Your task to perform on an android device: Open eBay Image 0: 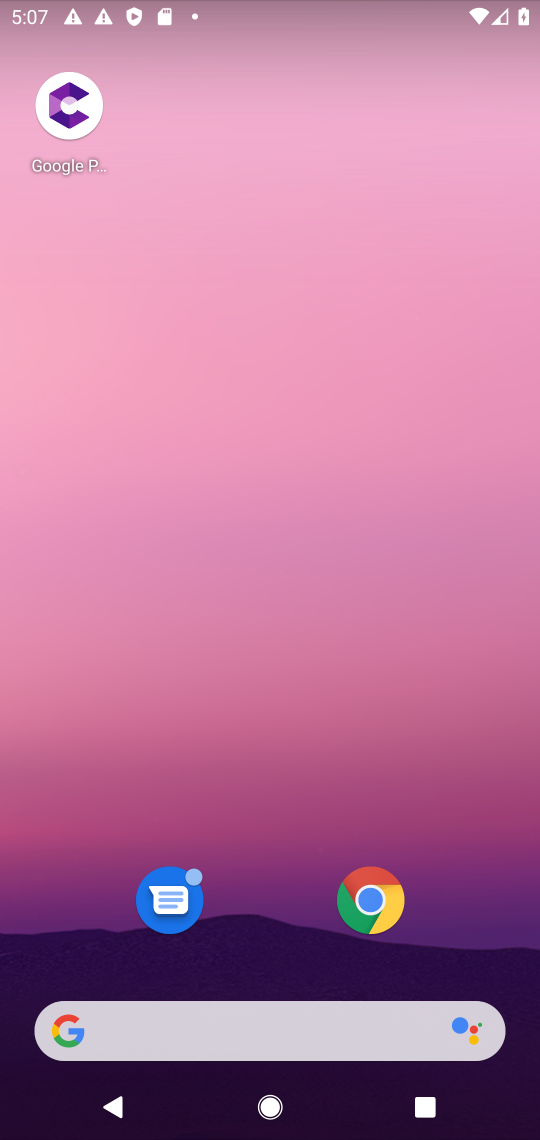
Step 0: click (356, 941)
Your task to perform on an android device: Open eBay Image 1: 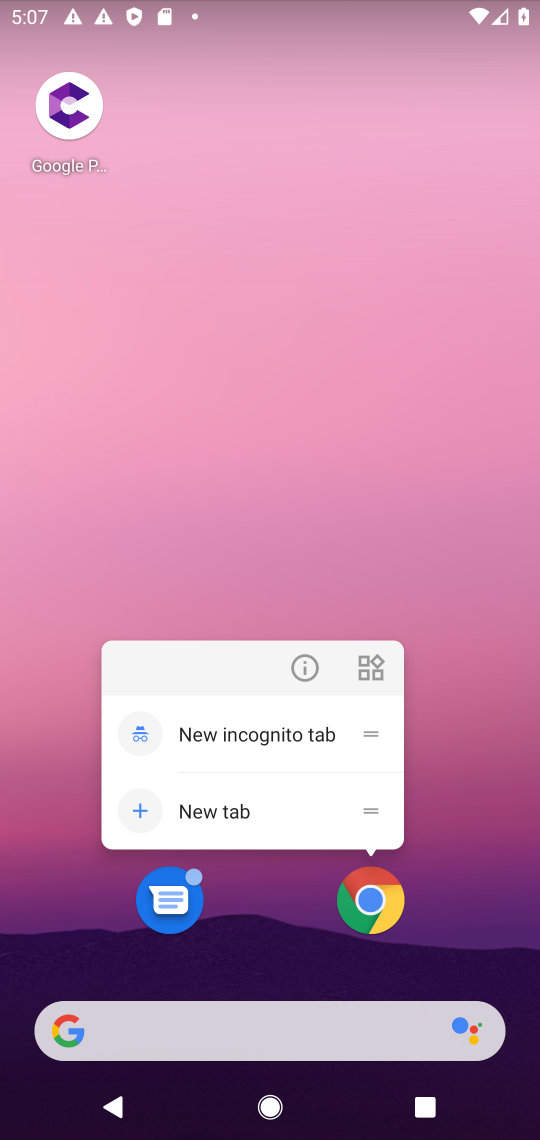
Step 1: click (367, 929)
Your task to perform on an android device: Open eBay Image 2: 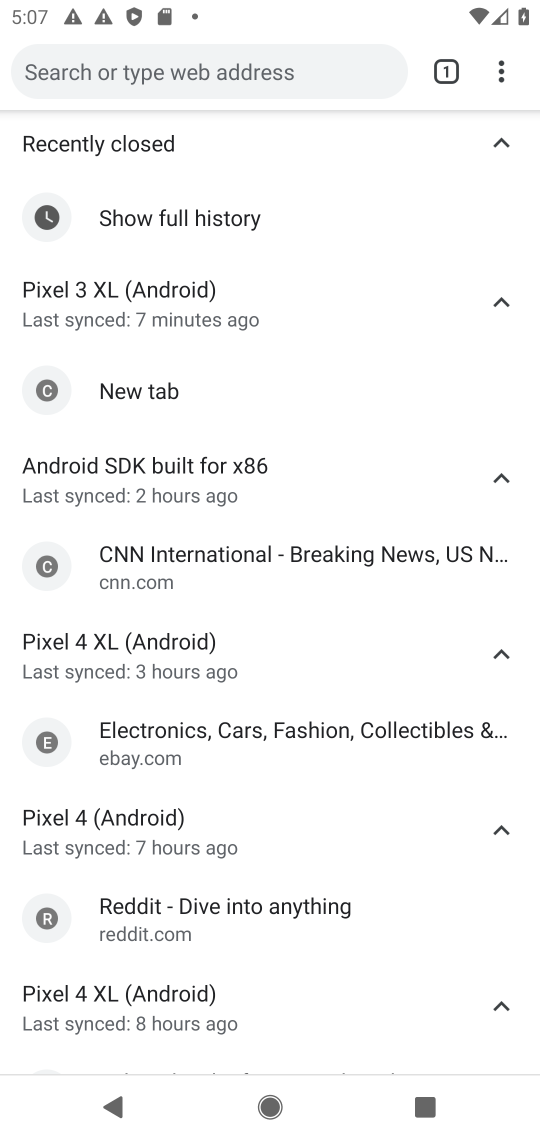
Step 2: click (239, 84)
Your task to perform on an android device: Open eBay Image 3: 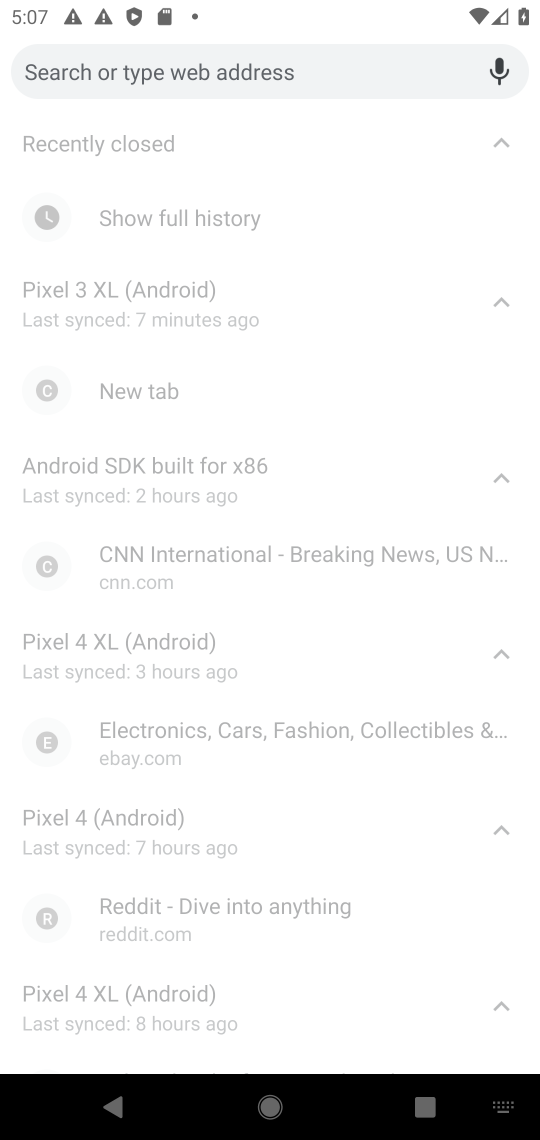
Step 3: type "ebay"
Your task to perform on an android device: Open eBay Image 4: 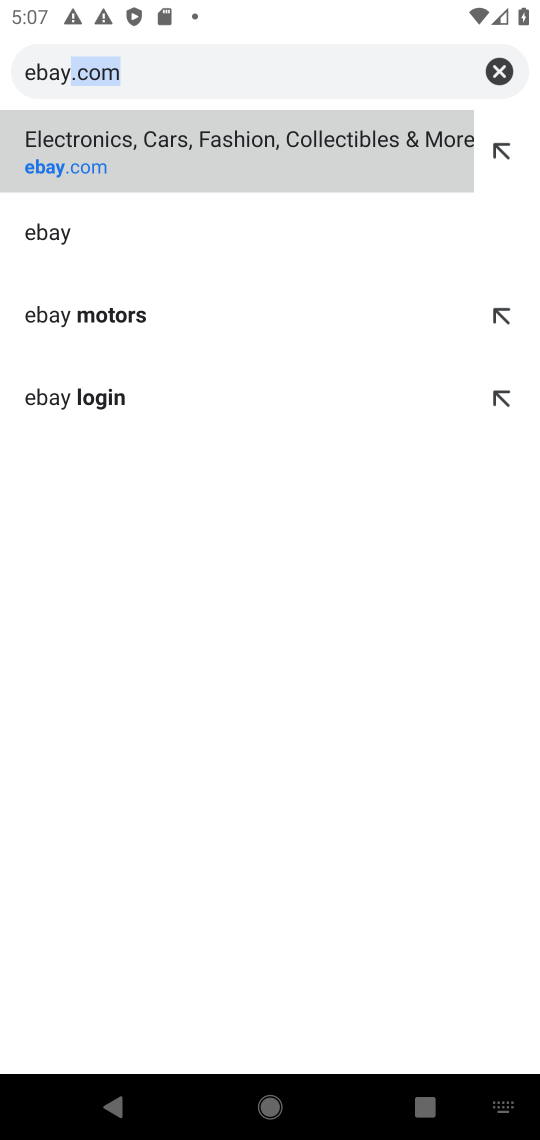
Step 4: click (98, 161)
Your task to perform on an android device: Open eBay Image 5: 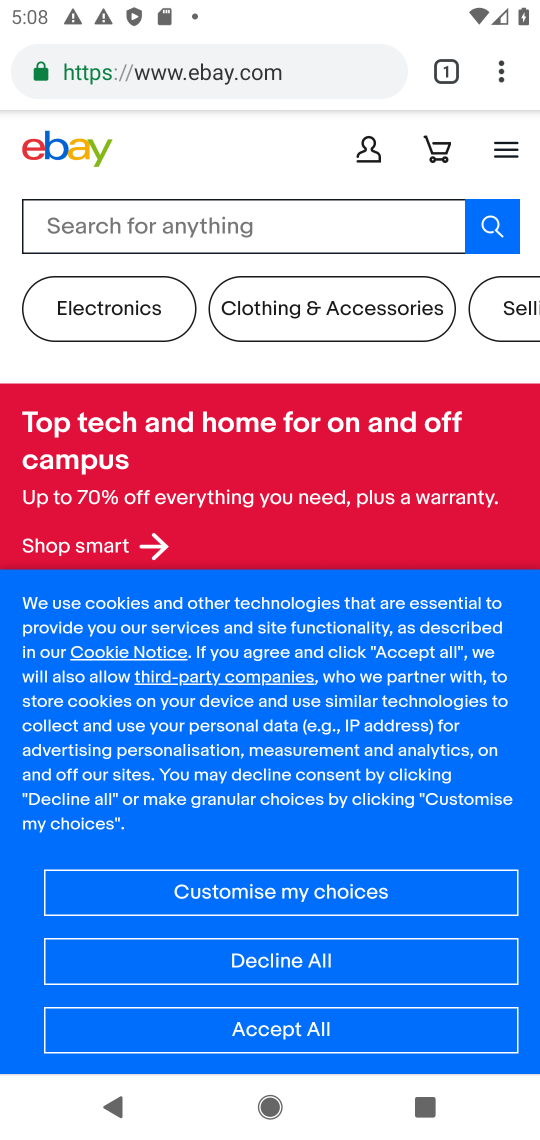
Step 5: task complete